Your task to perform on an android device: Open network settings Image 0: 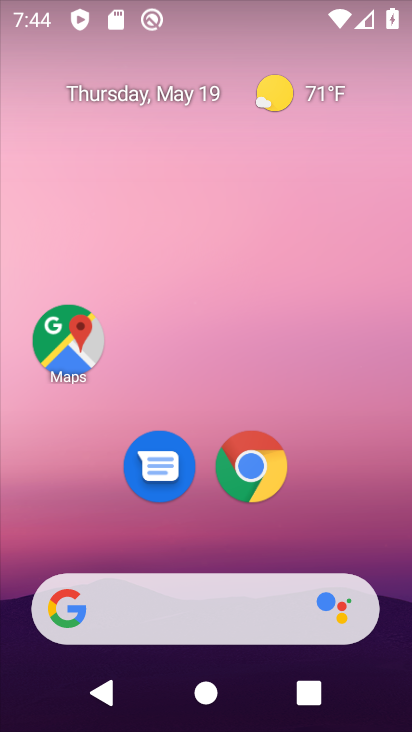
Step 0: drag from (305, 517) to (221, 18)
Your task to perform on an android device: Open network settings Image 1: 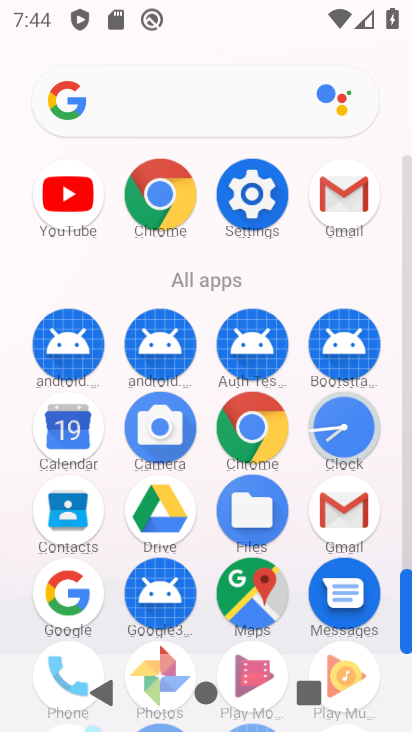
Step 1: click (252, 187)
Your task to perform on an android device: Open network settings Image 2: 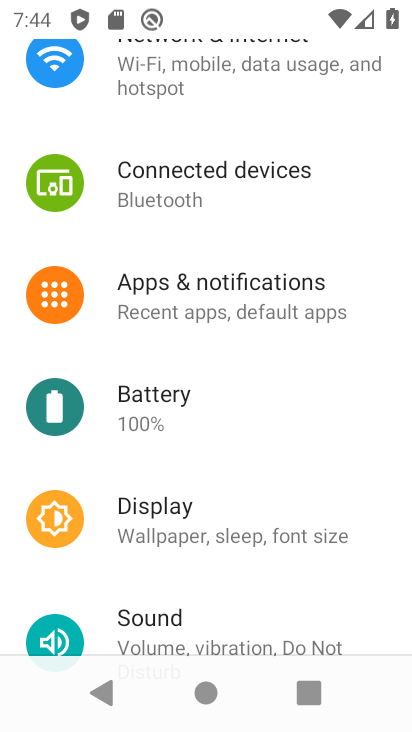
Step 2: drag from (264, 141) to (268, 500)
Your task to perform on an android device: Open network settings Image 3: 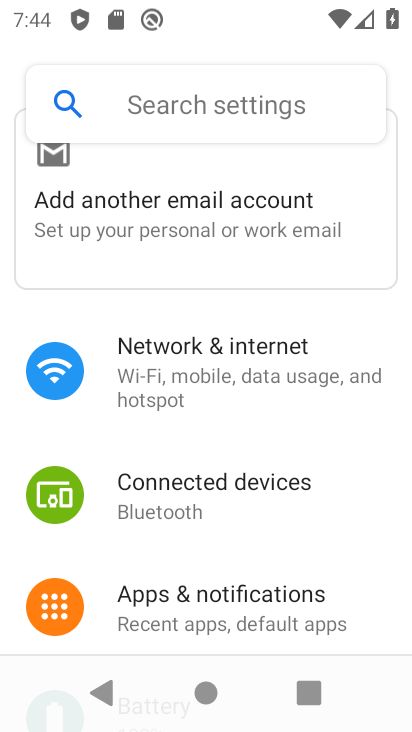
Step 3: click (212, 352)
Your task to perform on an android device: Open network settings Image 4: 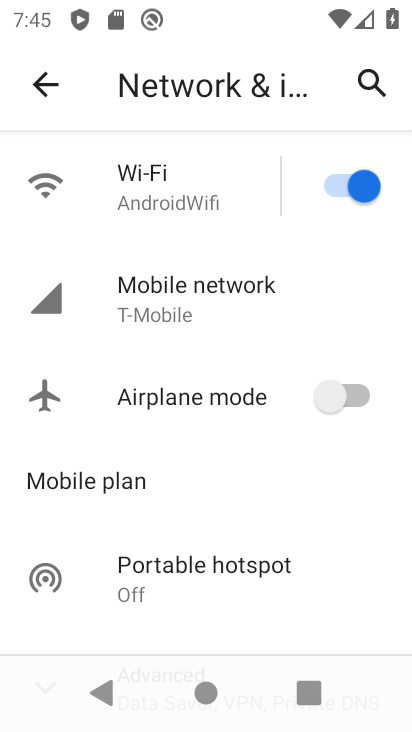
Step 4: task complete